Your task to perform on an android device: turn on notifications settings in the gmail app Image 0: 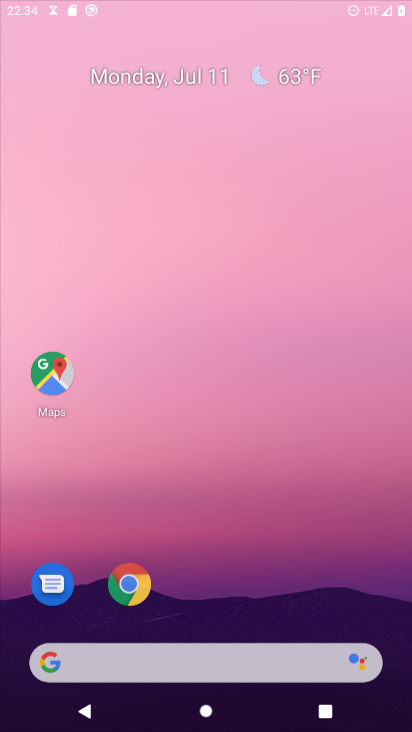
Step 0: press home button
Your task to perform on an android device: turn on notifications settings in the gmail app Image 1: 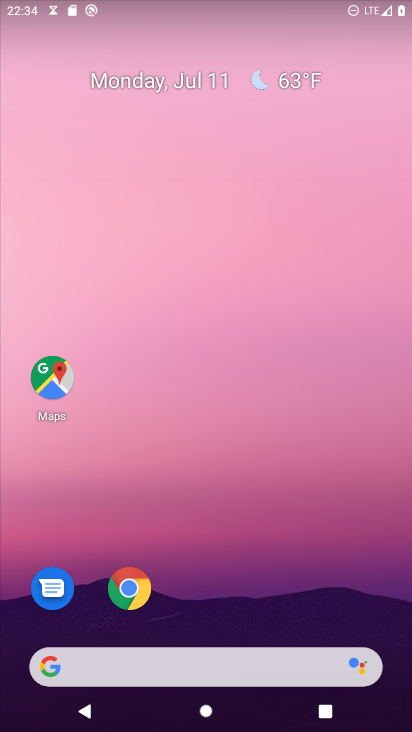
Step 1: drag from (224, 621) to (225, 206)
Your task to perform on an android device: turn on notifications settings in the gmail app Image 2: 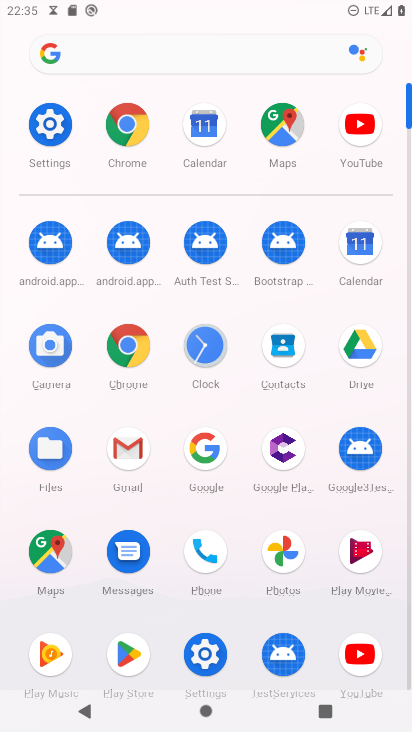
Step 2: click (128, 444)
Your task to perform on an android device: turn on notifications settings in the gmail app Image 3: 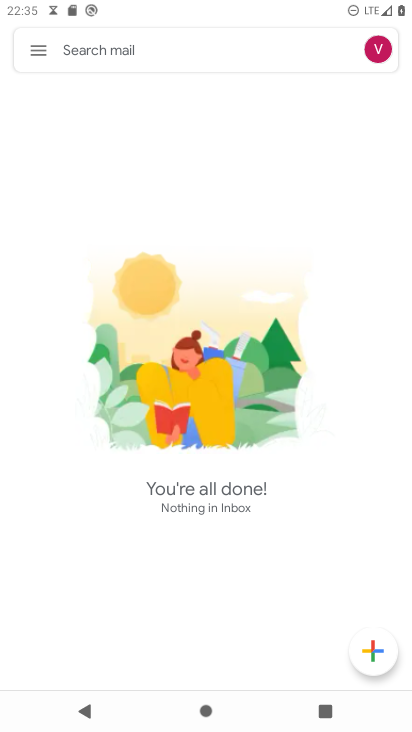
Step 3: click (39, 52)
Your task to perform on an android device: turn on notifications settings in the gmail app Image 4: 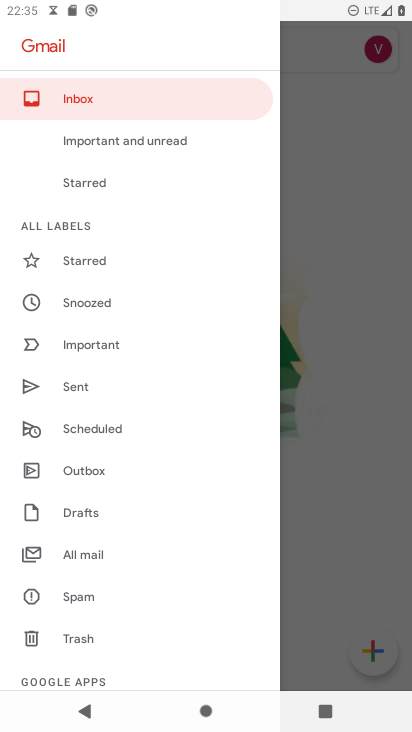
Step 4: drag from (195, 643) to (232, 287)
Your task to perform on an android device: turn on notifications settings in the gmail app Image 5: 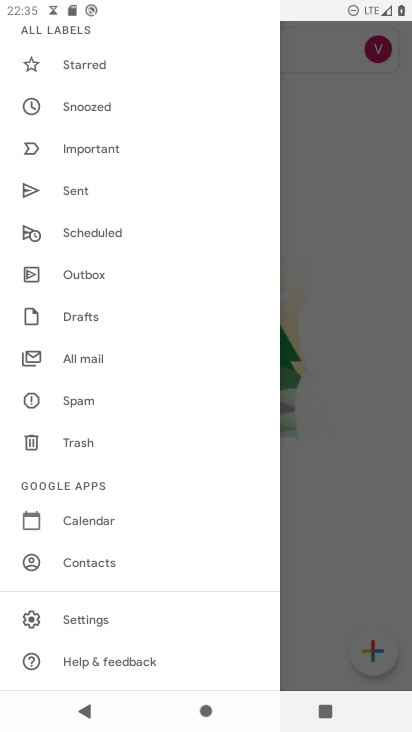
Step 5: click (71, 626)
Your task to perform on an android device: turn on notifications settings in the gmail app Image 6: 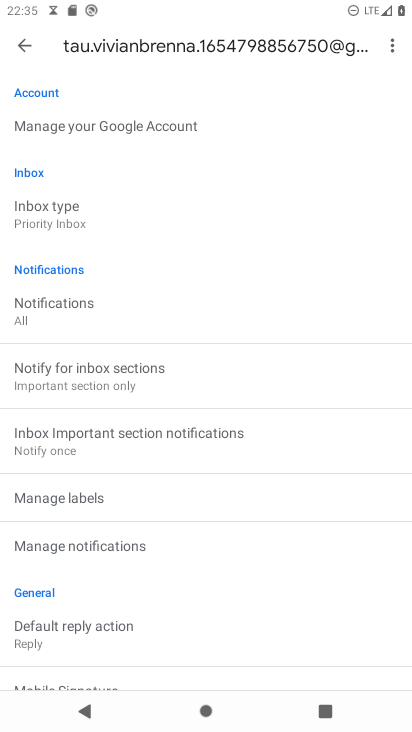
Step 6: click (50, 552)
Your task to perform on an android device: turn on notifications settings in the gmail app Image 7: 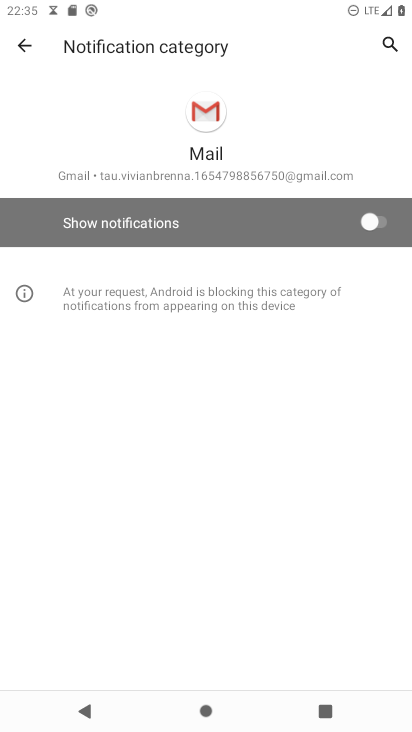
Step 7: click (368, 223)
Your task to perform on an android device: turn on notifications settings in the gmail app Image 8: 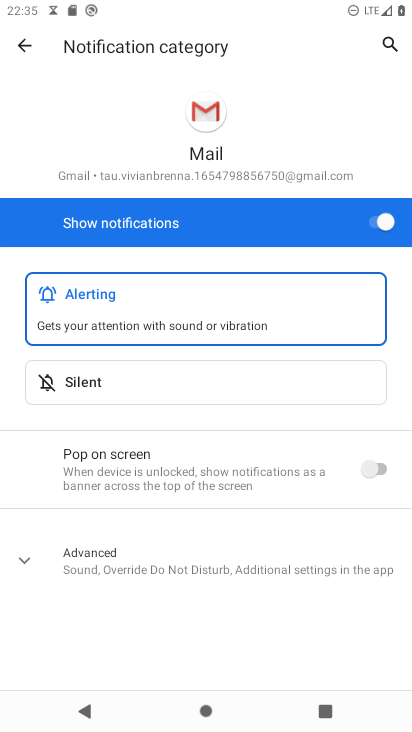
Step 8: task complete